Your task to perform on an android device: toggle data saver in the chrome app Image 0: 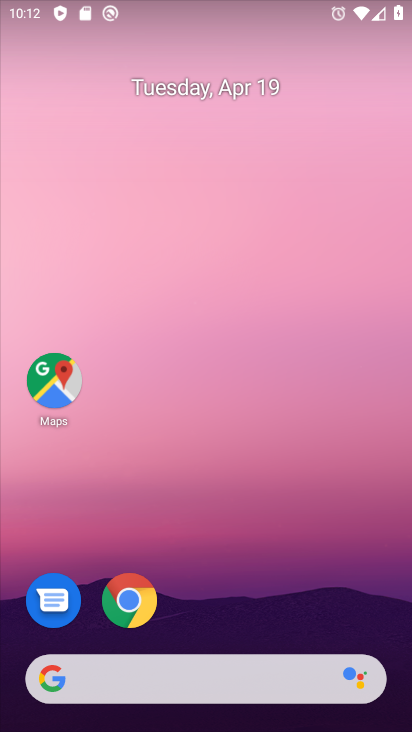
Step 0: drag from (299, 613) to (308, 144)
Your task to perform on an android device: toggle data saver in the chrome app Image 1: 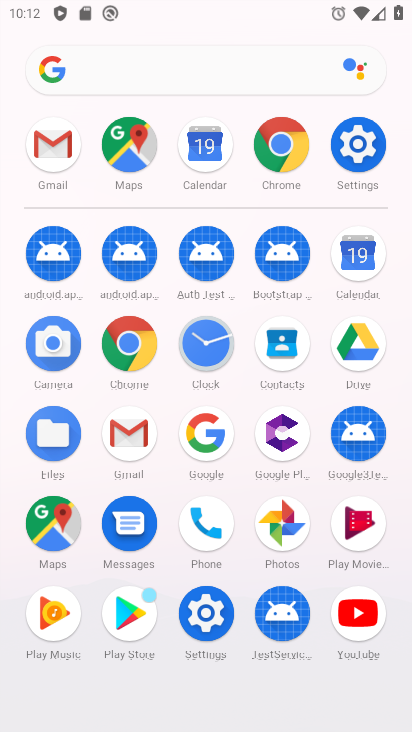
Step 1: click (134, 353)
Your task to perform on an android device: toggle data saver in the chrome app Image 2: 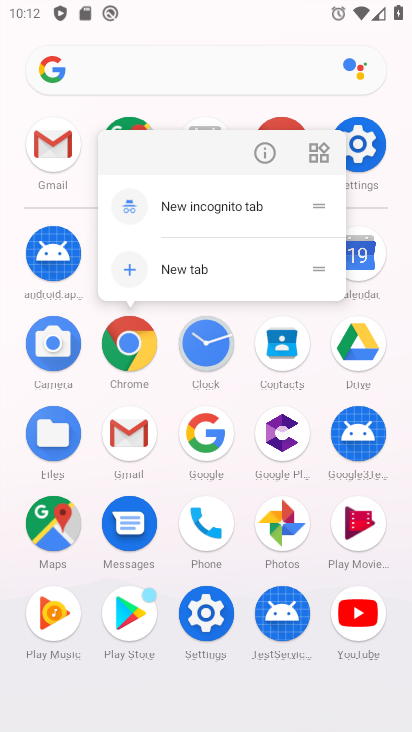
Step 2: click (134, 353)
Your task to perform on an android device: toggle data saver in the chrome app Image 3: 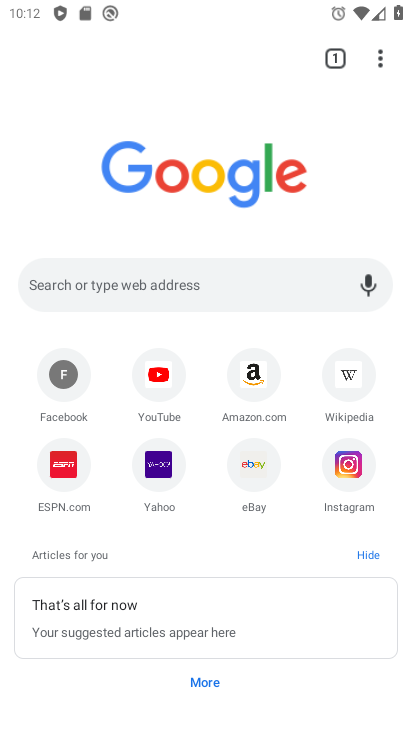
Step 3: click (379, 49)
Your task to perform on an android device: toggle data saver in the chrome app Image 4: 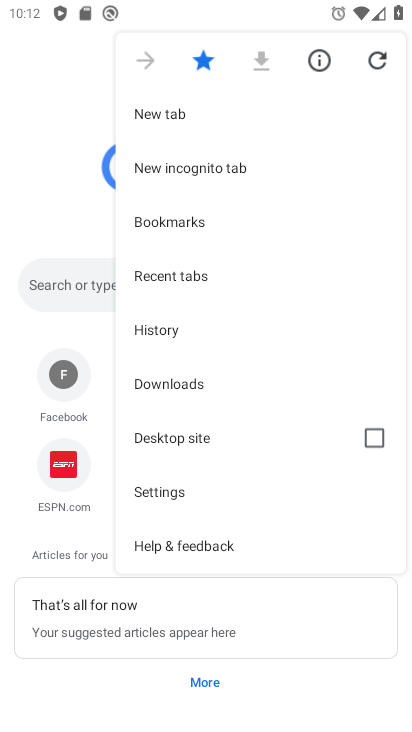
Step 4: click (182, 488)
Your task to perform on an android device: toggle data saver in the chrome app Image 5: 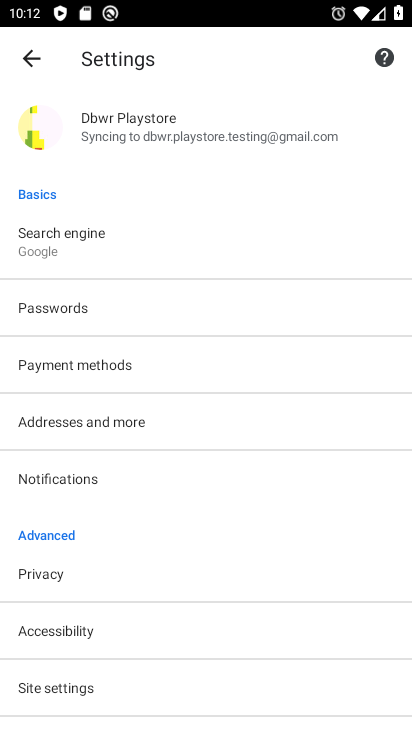
Step 5: drag from (162, 596) to (154, 276)
Your task to perform on an android device: toggle data saver in the chrome app Image 6: 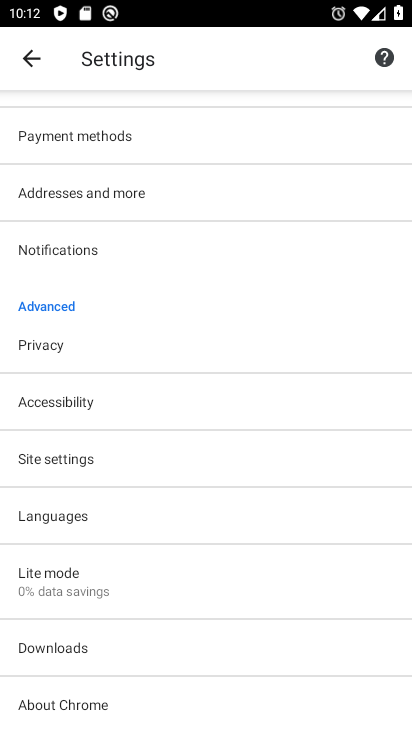
Step 6: click (201, 578)
Your task to perform on an android device: toggle data saver in the chrome app Image 7: 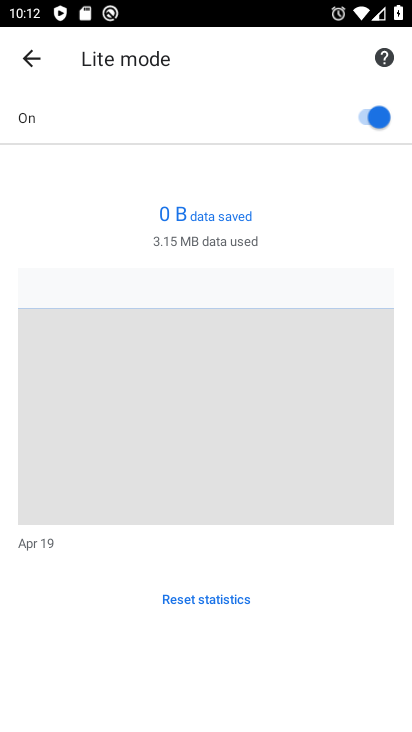
Step 7: click (367, 114)
Your task to perform on an android device: toggle data saver in the chrome app Image 8: 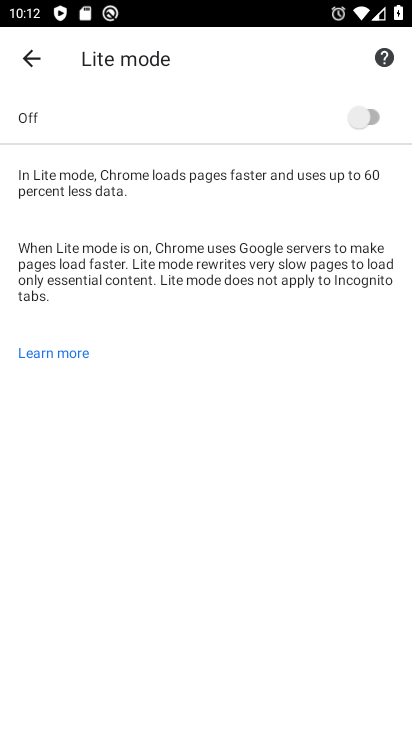
Step 8: task complete